Your task to perform on an android device: delete location history Image 0: 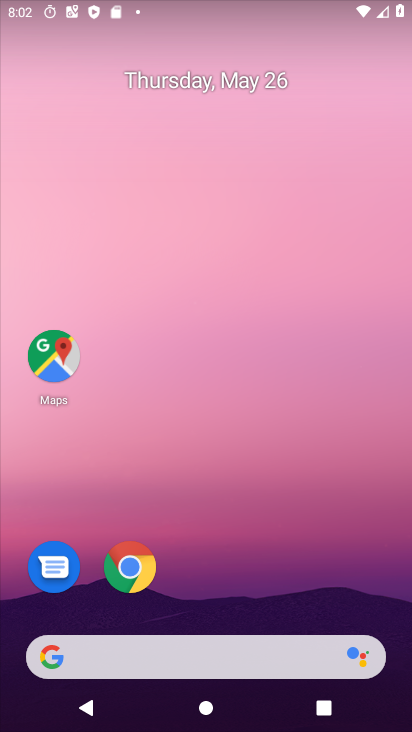
Step 0: press home button
Your task to perform on an android device: delete location history Image 1: 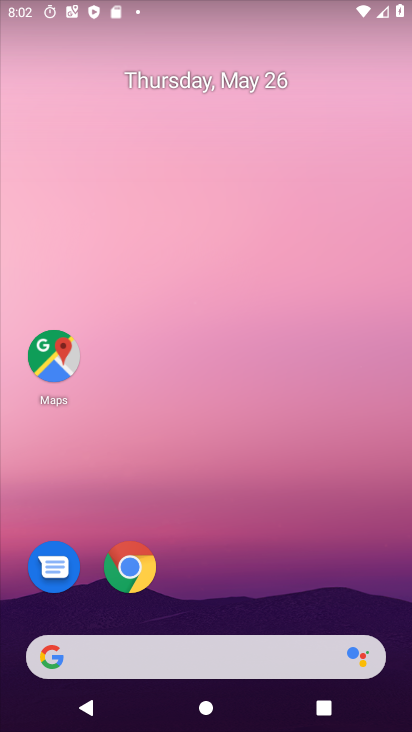
Step 1: click (54, 366)
Your task to perform on an android device: delete location history Image 2: 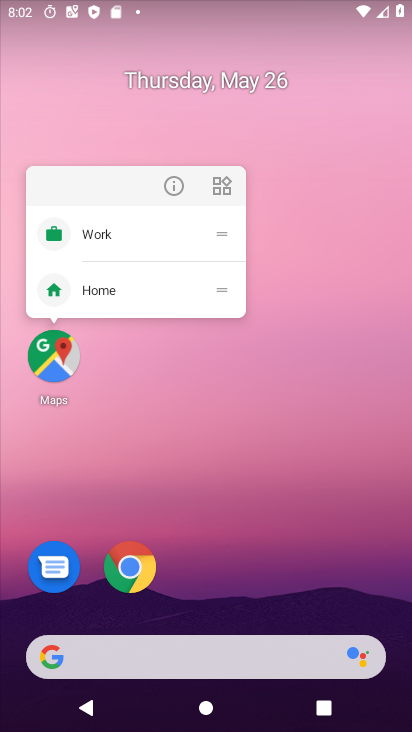
Step 2: click (60, 368)
Your task to perform on an android device: delete location history Image 3: 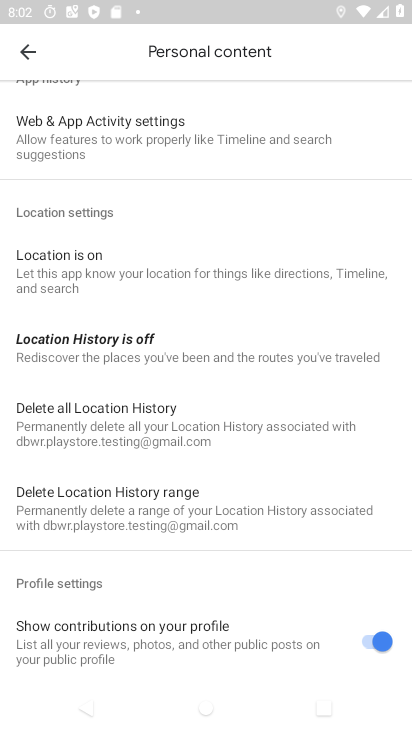
Step 3: click (136, 413)
Your task to perform on an android device: delete location history Image 4: 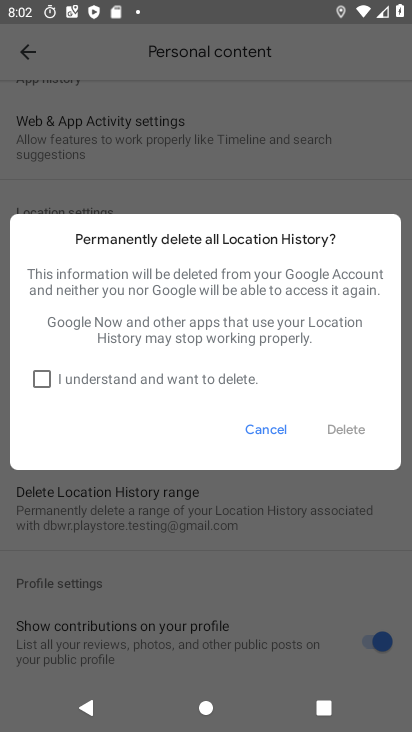
Step 4: click (39, 377)
Your task to perform on an android device: delete location history Image 5: 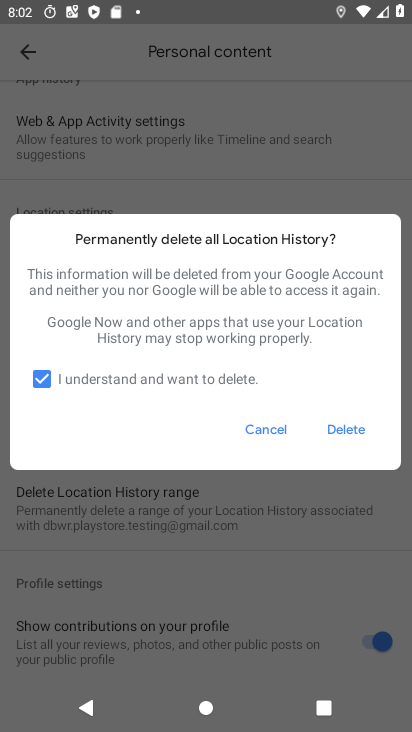
Step 5: click (351, 433)
Your task to perform on an android device: delete location history Image 6: 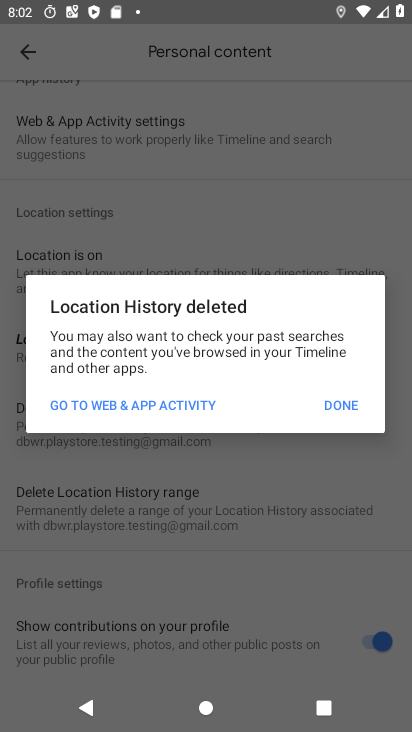
Step 6: click (353, 412)
Your task to perform on an android device: delete location history Image 7: 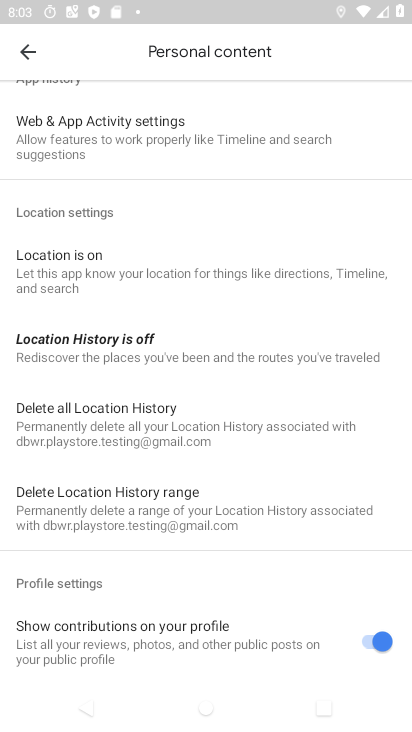
Step 7: task complete